Your task to perform on an android device: Open Maps and search for coffee Image 0: 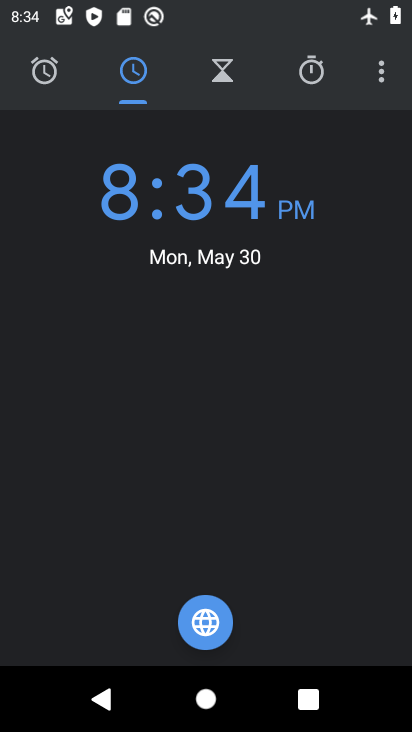
Step 0: drag from (211, 585) to (222, 212)
Your task to perform on an android device: Open Maps and search for coffee Image 1: 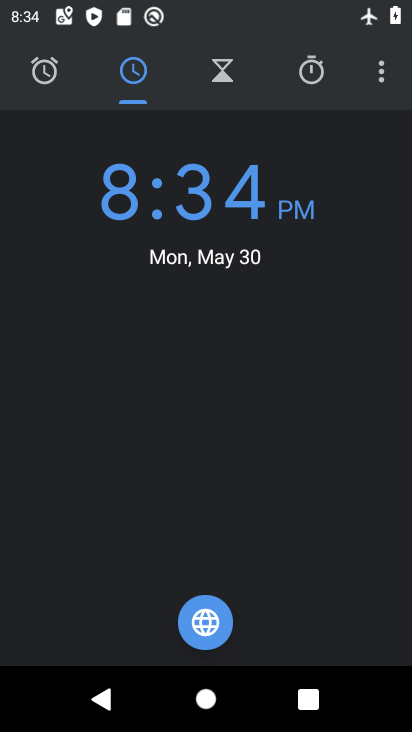
Step 1: press home button
Your task to perform on an android device: Open Maps and search for coffee Image 2: 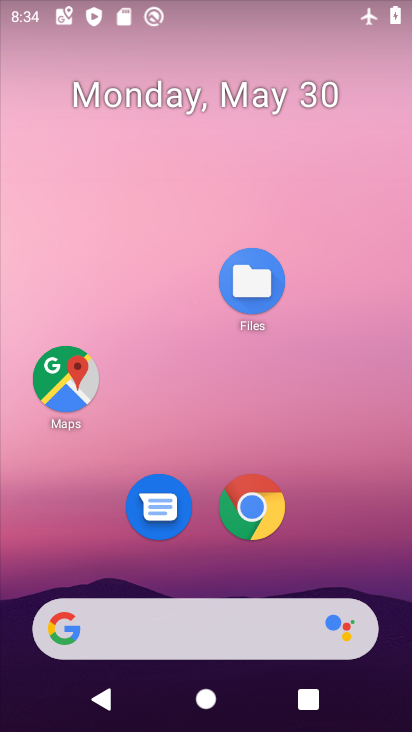
Step 2: click (65, 373)
Your task to perform on an android device: Open Maps and search for coffee Image 3: 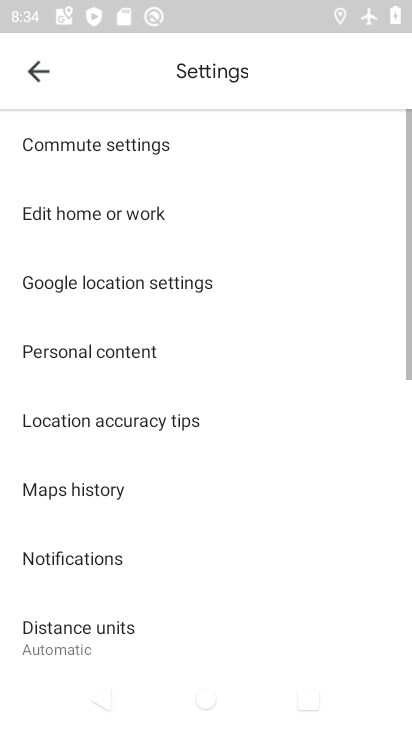
Step 3: click (36, 67)
Your task to perform on an android device: Open Maps and search for coffee Image 4: 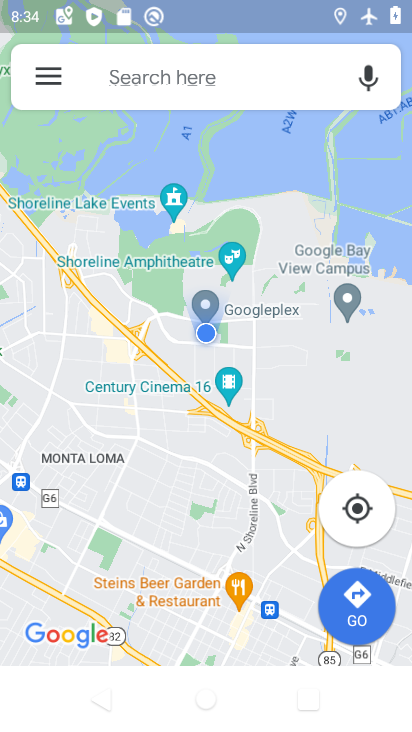
Step 4: click (214, 89)
Your task to perform on an android device: Open Maps and search for coffee Image 5: 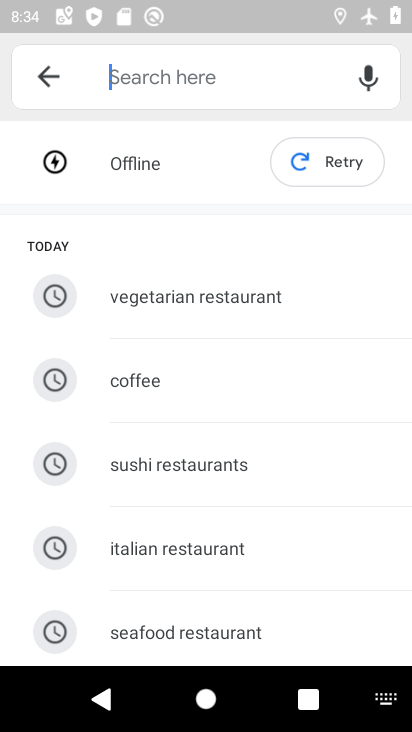
Step 5: type "coffee"
Your task to perform on an android device: Open Maps and search for coffee Image 6: 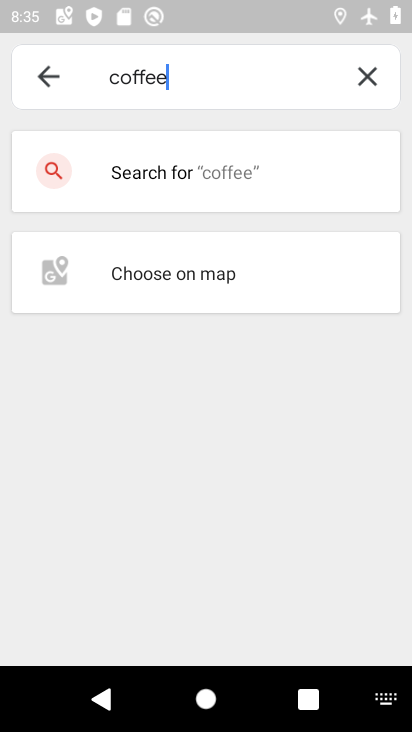
Step 6: drag from (349, 8) to (327, 242)
Your task to perform on an android device: Open Maps and search for coffee Image 7: 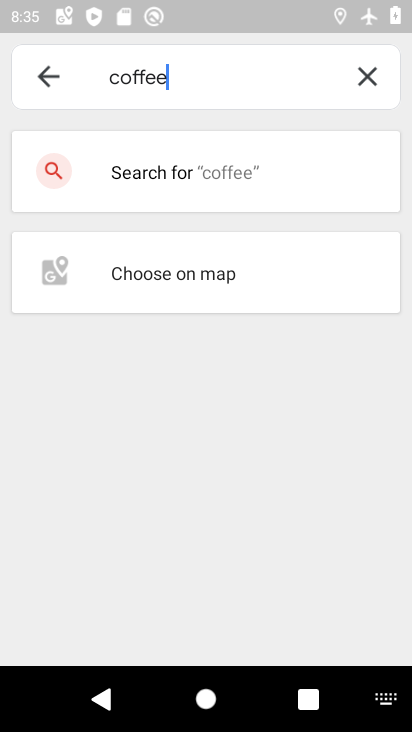
Step 7: drag from (355, 12) to (322, 418)
Your task to perform on an android device: Open Maps and search for coffee Image 8: 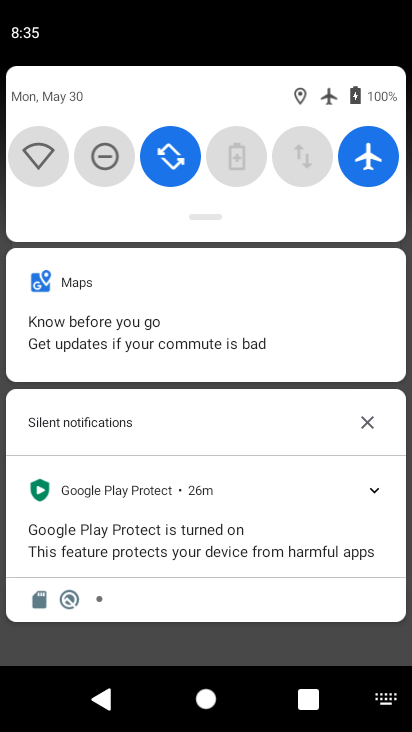
Step 8: click (372, 159)
Your task to perform on an android device: Open Maps and search for coffee Image 9: 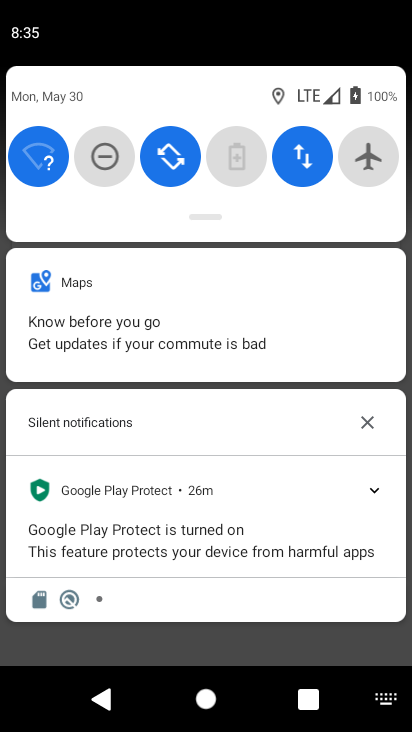
Step 9: click (263, 654)
Your task to perform on an android device: Open Maps and search for coffee Image 10: 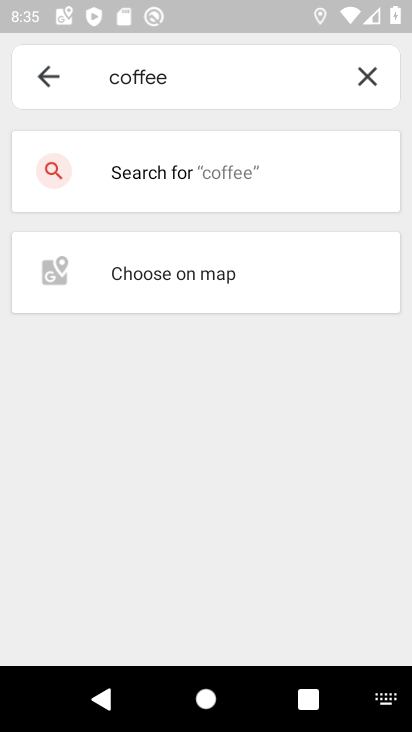
Step 10: click (217, 170)
Your task to perform on an android device: Open Maps and search for coffee Image 11: 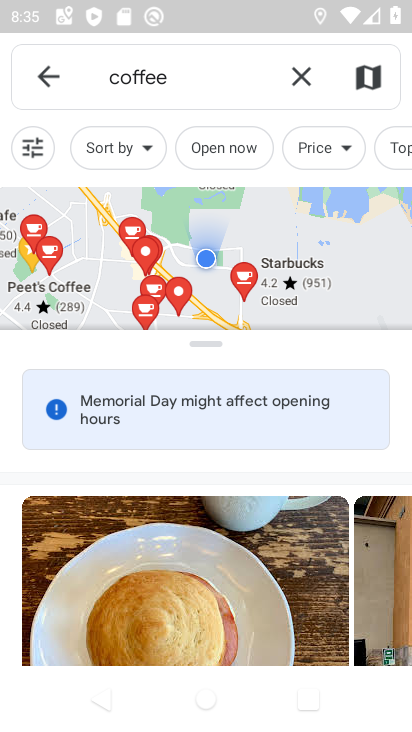
Step 11: task complete